Your task to perform on an android device: manage bookmarks in the chrome app Image 0: 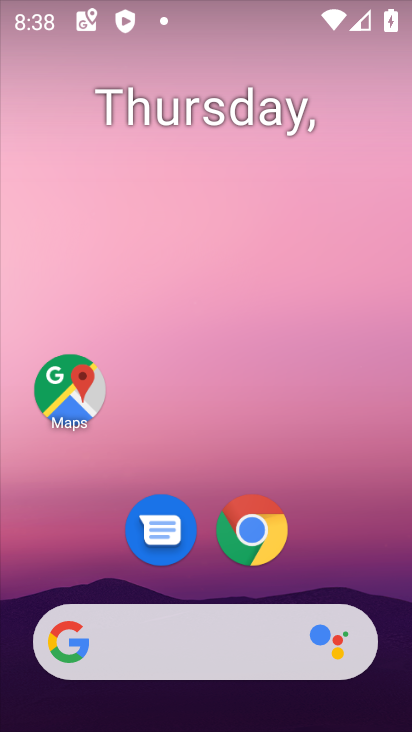
Step 0: drag from (277, 588) to (268, 29)
Your task to perform on an android device: manage bookmarks in the chrome app Image 1: 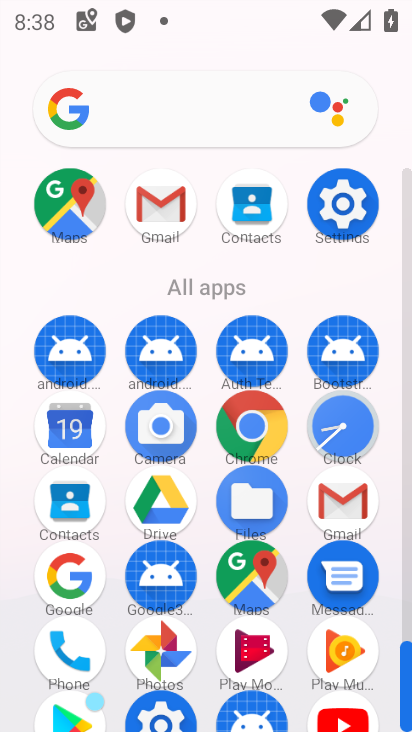
Step 1: click (260, 425)
Your task to perform on an android device: manage bookmarks in the chrome app Image 2: 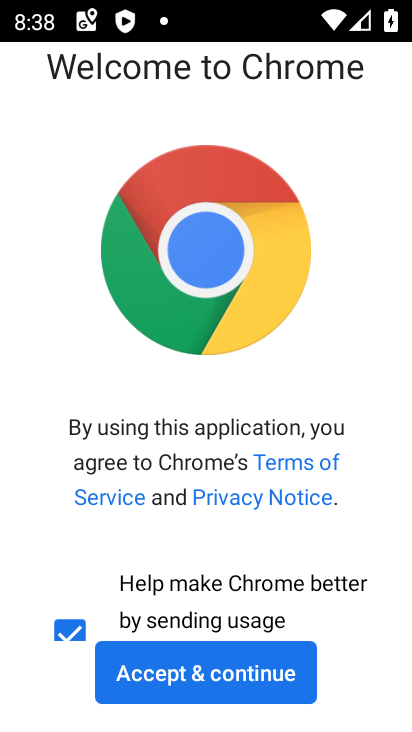
Step 2: click (274, 686)
Your task to perform on an android device: manage bookmarks in the chrome app Image 3: 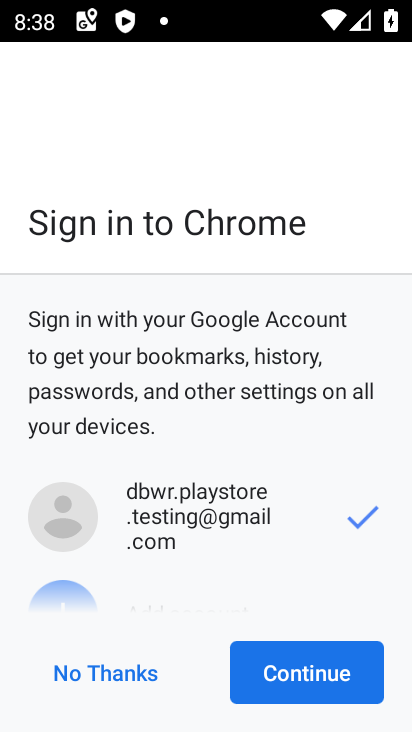
Step 3: click (272, 674)
Your task to perform on an android device: manage bookmarks in the chrome app Image 4: 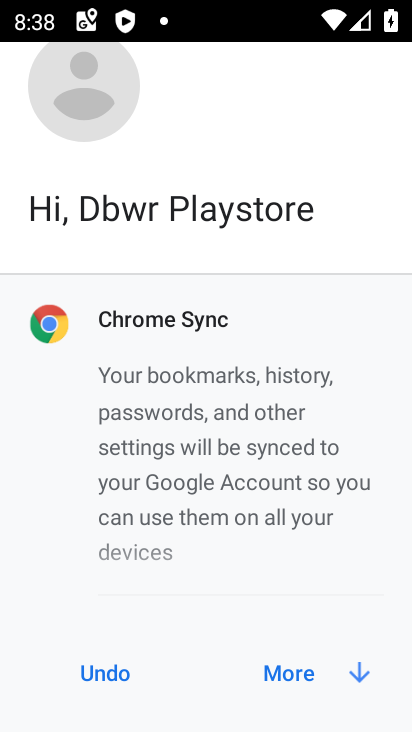
Step 4: click (299, 663)
Your task to perform on an android device: manage bookmarks in the chrome app Image 5: 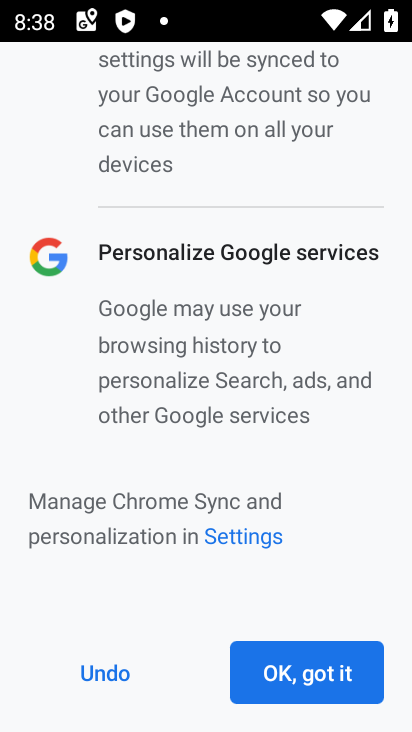
Step 5: click (303, 665)
Your task to perform on an android device: manage bookmarks in the chrome app Image 6: 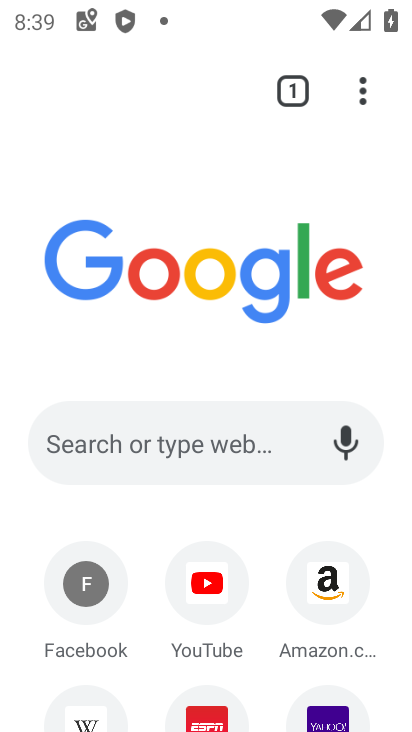
Step 6: click (378, 110)
Your task to perform on an android device: manage bookmarks in the chrome app Image 7: 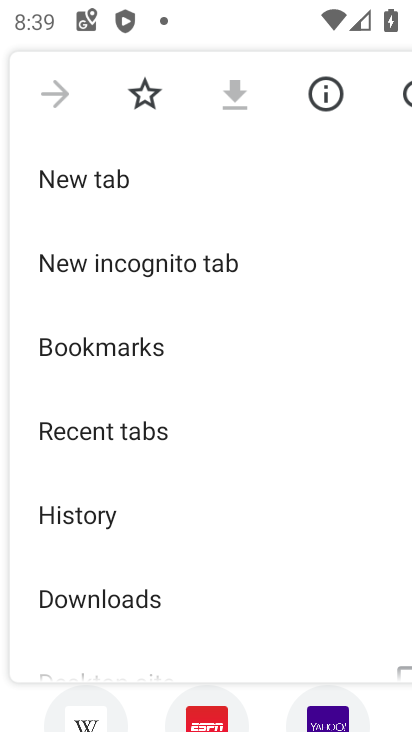
Step 7: click (162, 352)
Your task to perform on an android device: manage bookmarks in the chrome app Image 8: 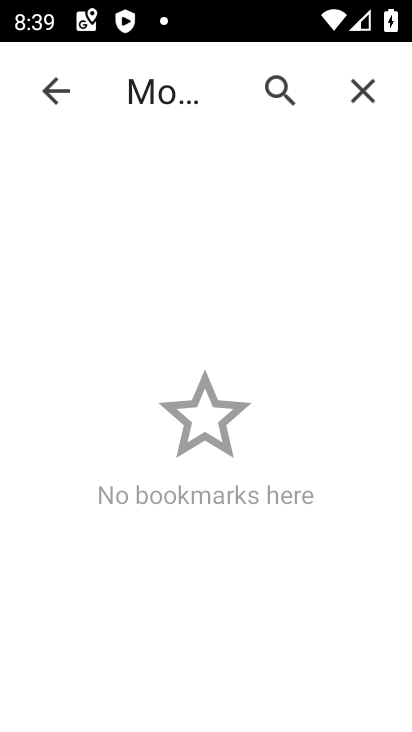
Step 8: task complete